Your task to perform on an android device: Open eBay Image 0: 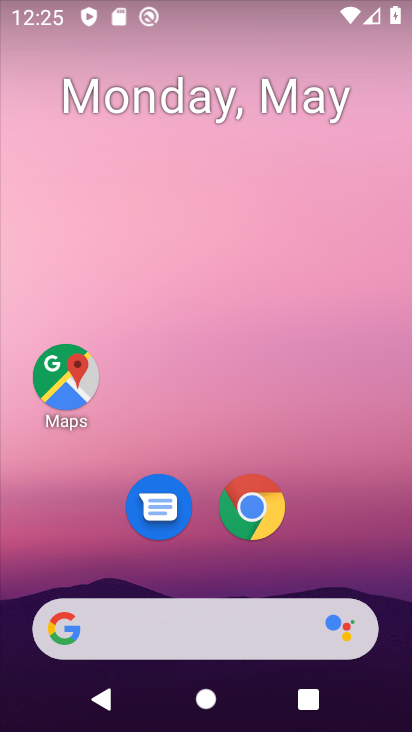
Step 0: click (248, 510)
Your task to perform on an android device: Open eBay Image 1: 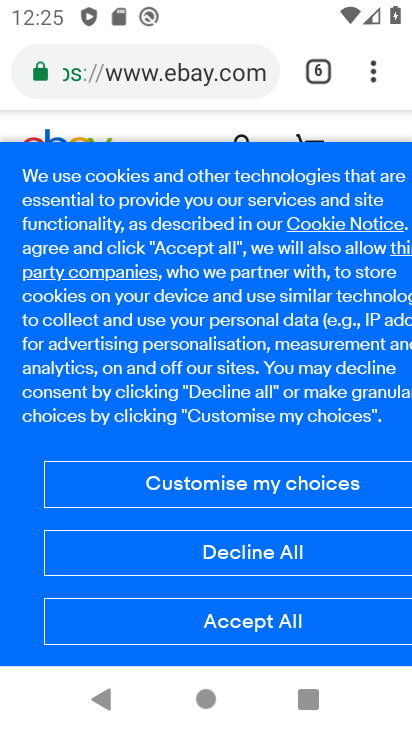
Step 1: task complete